Your task to perform on an android device: Open Android settings Image 0: 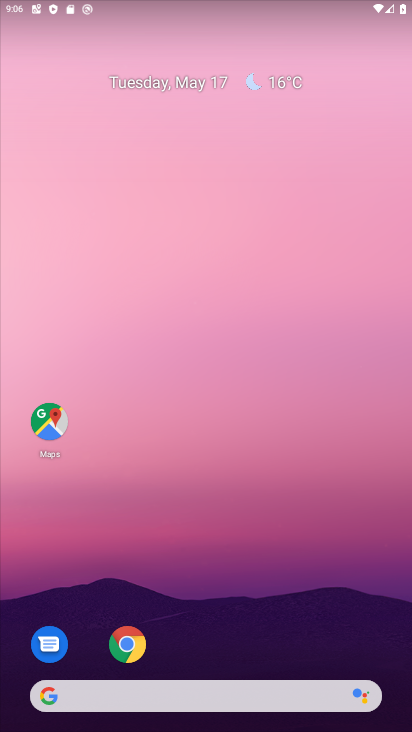
Step 0: drag from (166, 661) to (285, 184)
Your task to perform on an android device: Open Android settings Image 1: 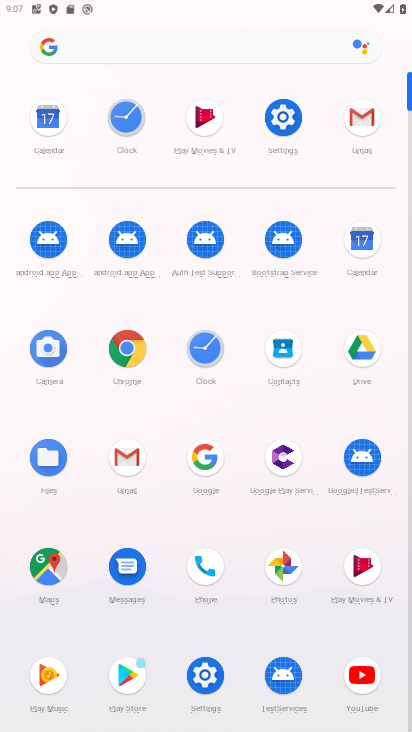
Step 1: click (269, 114)
Your task to perform on an android device: Open Android settings Image 2: 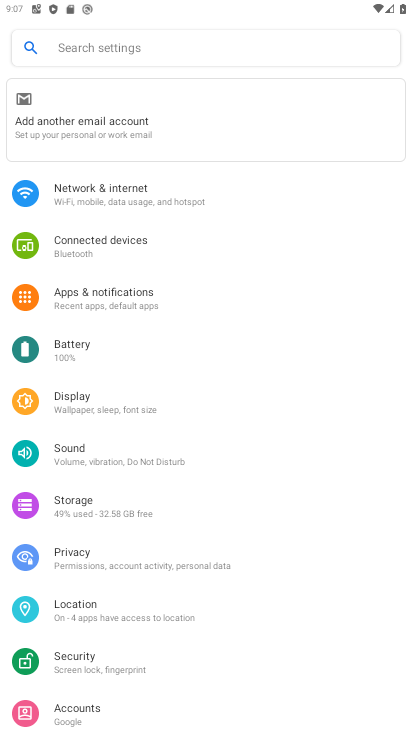
Step 2: drag from (138, 653) to (291, 105)
Your task to perform on an android device: Open Android settings Image 3: 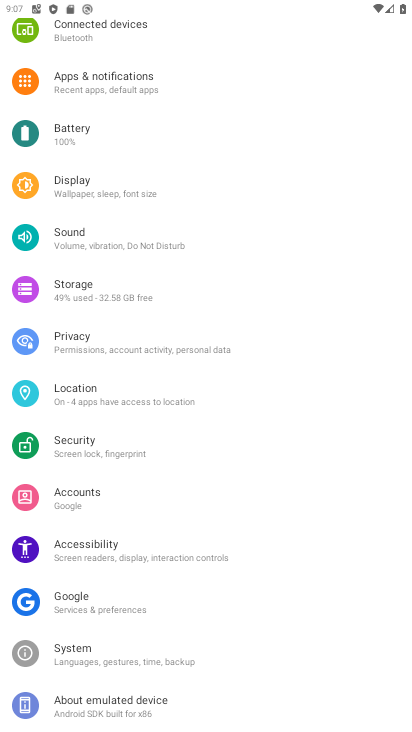
Step 3: click (119, 709)
Your task to perform on an android device: Open Android settings Image 4: 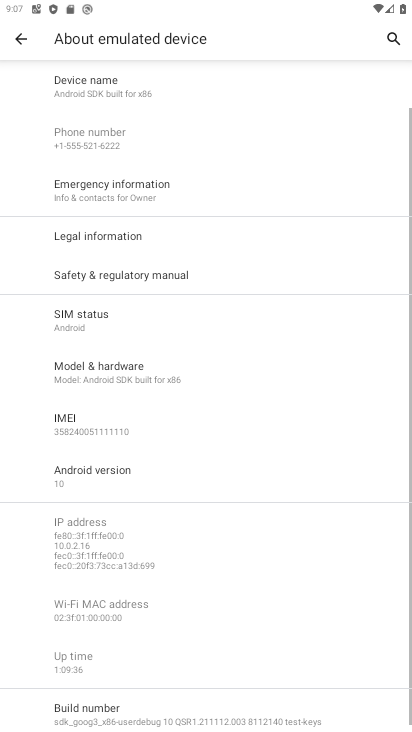
Step 4: click (92, 464)
Your task to perform on an android device: Open Android settings Image 5: 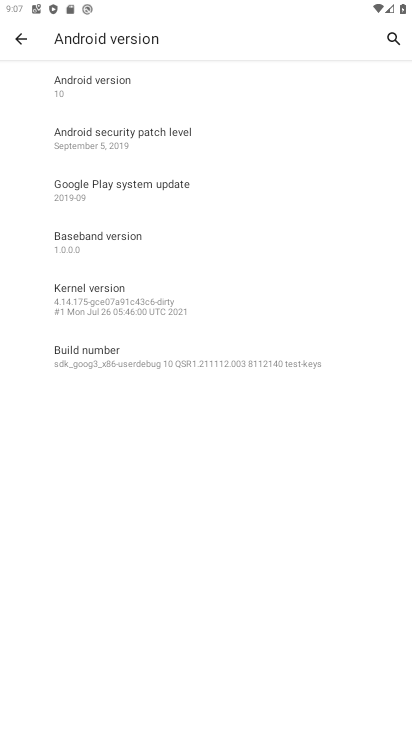
Step 5: task complete